Your task to perform on an android device: turn vacation reply on in the gmail app Image 0: 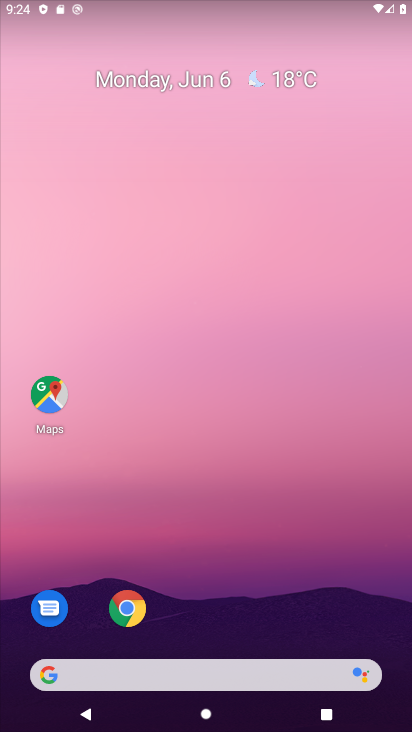
Step 0: drag from (231, 602) to (204, 73)
Your task to perform on an android device: turn vacation reply on in the gmail app Image 1: 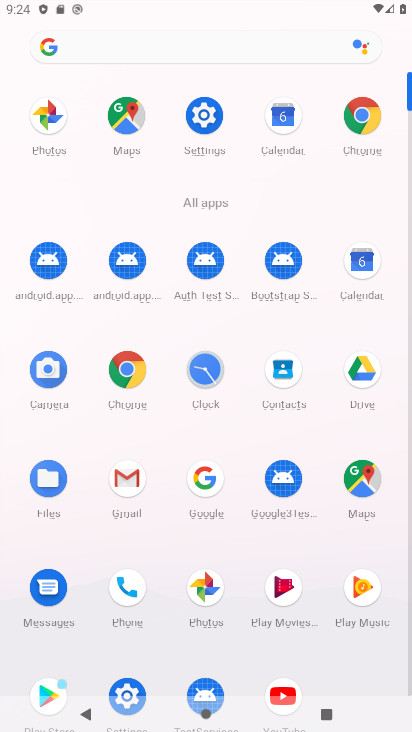
Step 1: click (125, 476)
Your task to perform on an android device: turn vacation reply on in the gmail app Image 2: 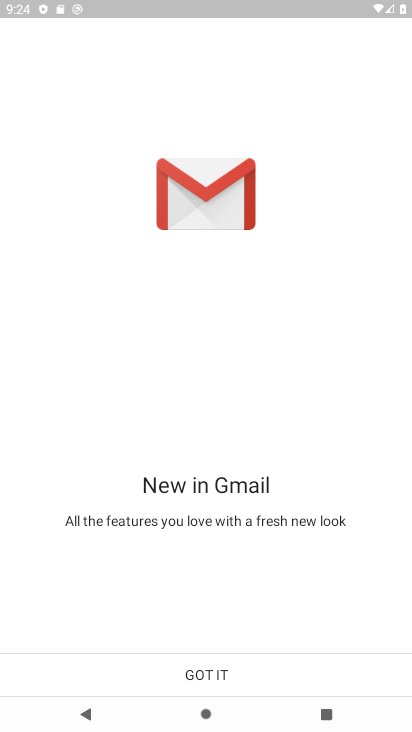
Step 2: click (204, 659)
Your task to perform on an android device: turn vacation reply on in the gmail app Image 3: 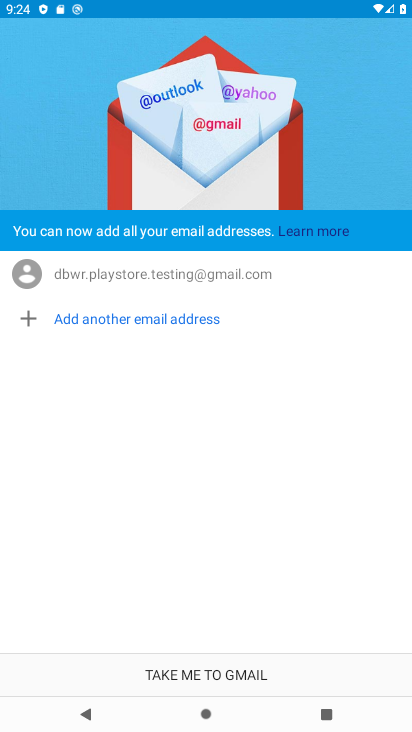
Step 3: click (205, 673)
Your task to perform on an android device: turn vacation reply on in the gmail app Image 4: 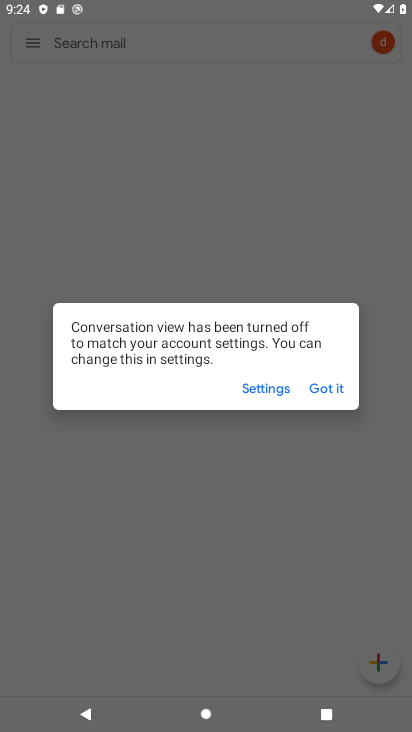
Step 4: click (330, 385)
Your task to perform on an android device: turn vacation reply on in the gmail app Image 5: 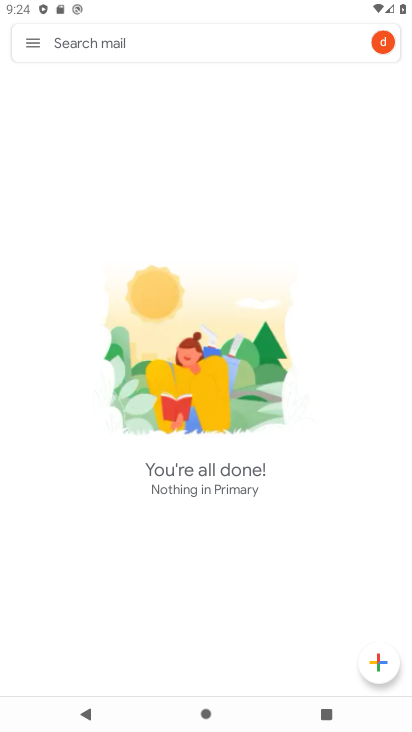
Step 5: click (32, 38)
Your task to perform on an android device: turn vacation reply on in the gmail app Image 6: 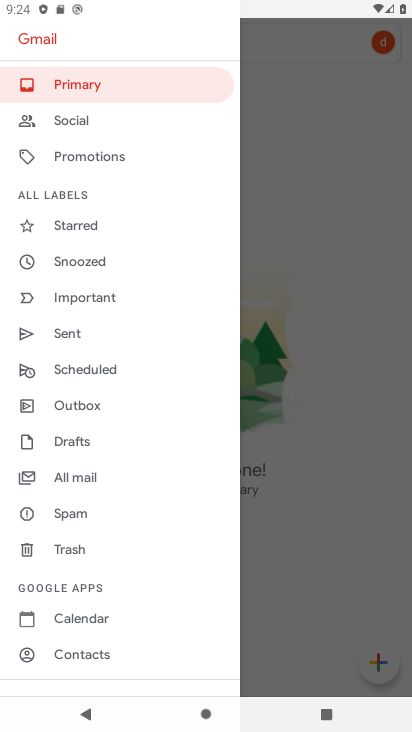
Step 6: drag from (92, 500) to (96, 325)
Your task to perform on an android device: turn vacation reply on in the gmail app Image 7: 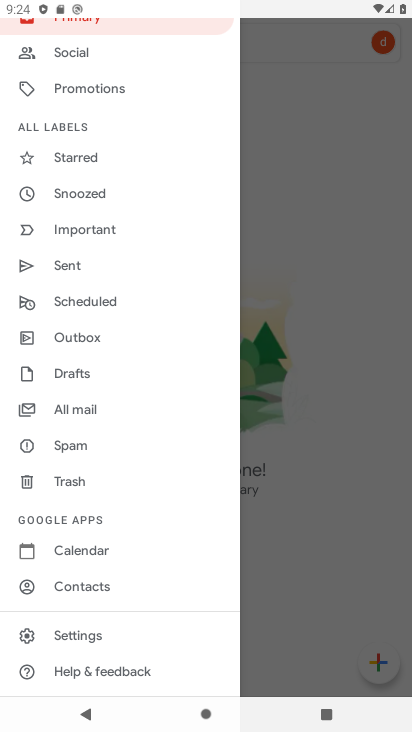
Step 7: click (93, 644)
Your task to perform on an android device: turn vacation reply on in the gmail app Image 8: 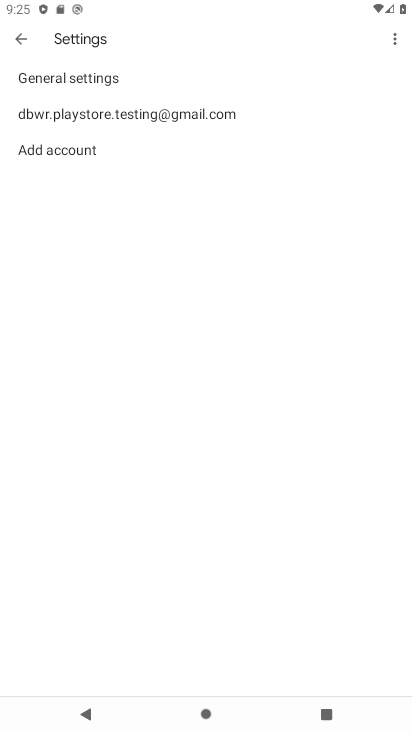
Step 8: click (97, 118)
Your task to perform on an android device: turn vacation reply on in the gmail app Image 9: 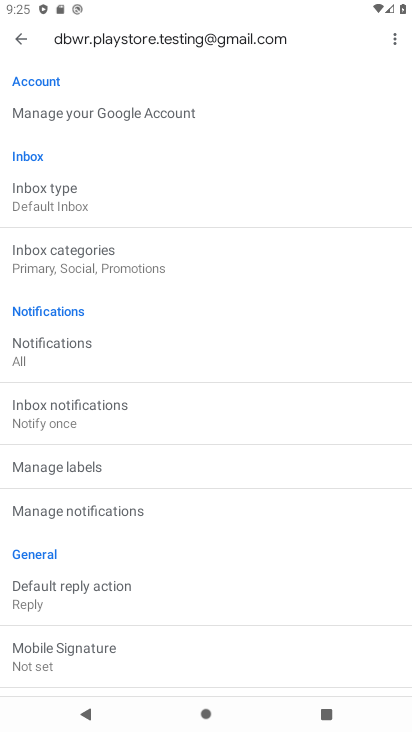
Step 9: drag from (81, 542) to (87, 345)
Your task to perform on an android device: turn vacation reply on in the gmail app Image 10: 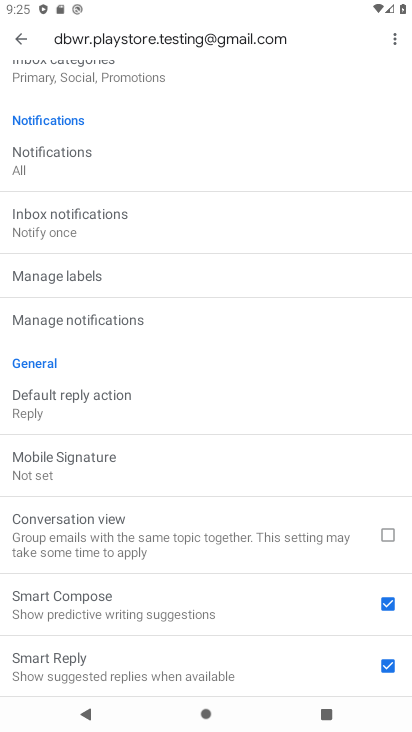
Step 10: drag from (97, 476) to (101, 350)
Your task to perform on an android device: turn vacation reply on in the gmail app Image 11: 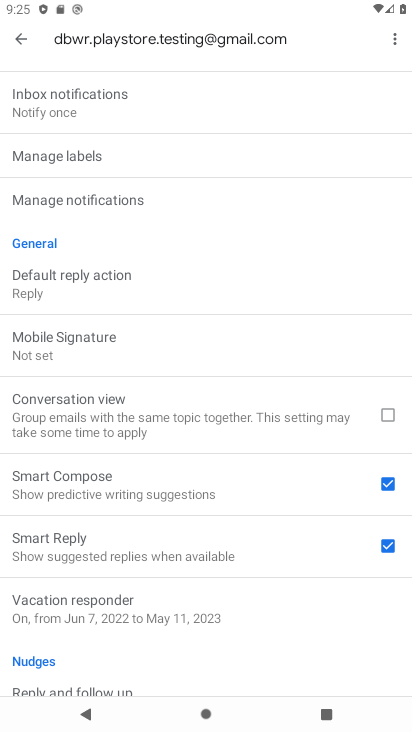
Step 11: click (87, 605)
Your task to perform on an android device: turn vacation reply on in the gmail app Image 12: 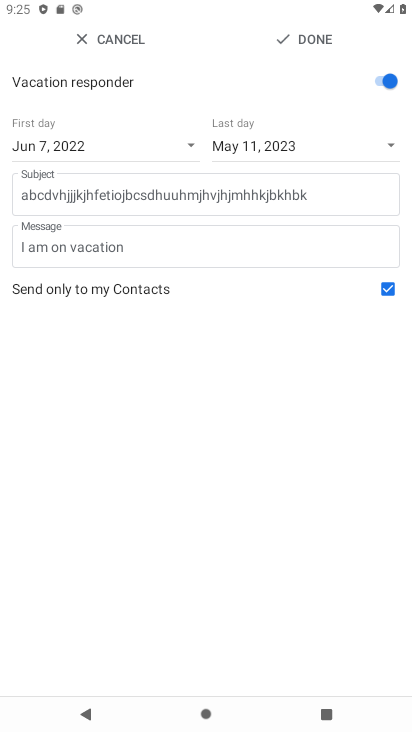
Step 12: task complete